Your task to perform on an android device: turn on javascript in the chrome app Image 0: 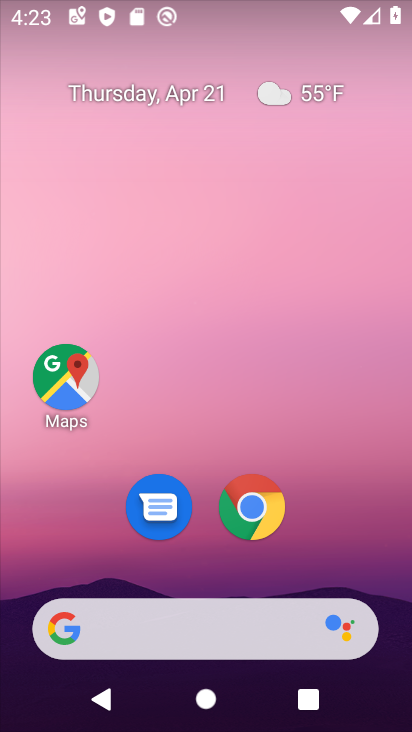
Step 0: drag from (356, 524) to (301, 151)
Your task to perform on an android device: turn on javascript in the chrome app Image 1: 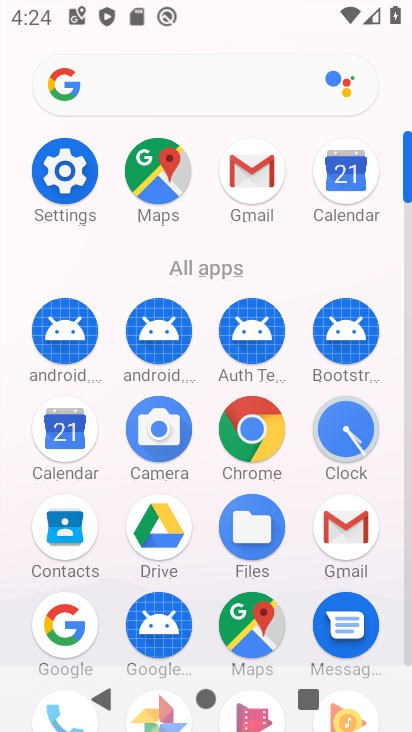
Step 1: click (249, 434)
Your task to perform on an android device: turn on javascript in the chrome app Image 2: 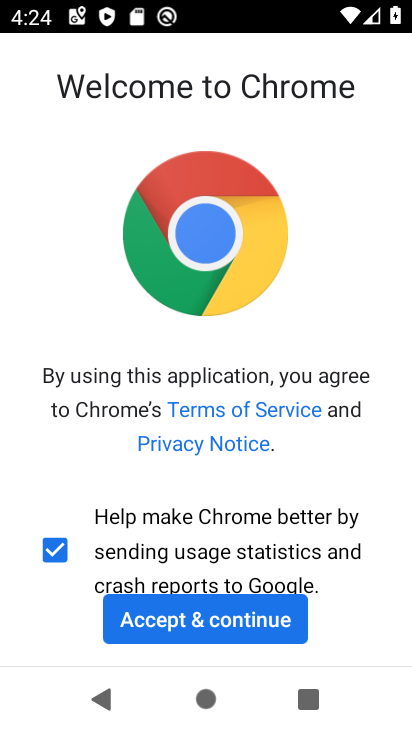
Step 2: click (242, 624)
Your task to perform on an android device: turn on javascript in the chrome app Image 3: 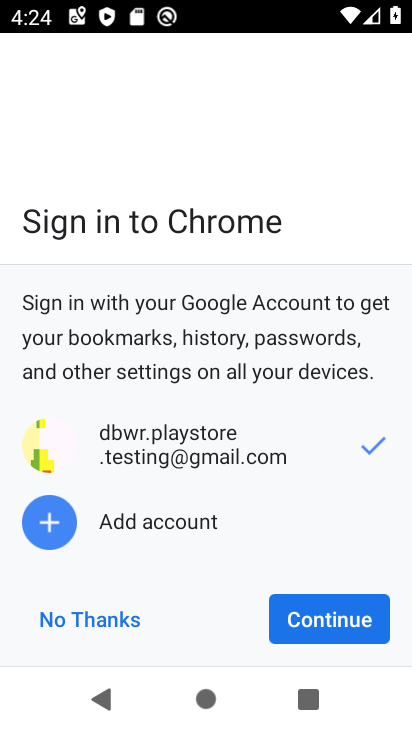
Step 3: click (89, 625)
Your task to perform on an android device: turn on javascript in the chrome app Image 4: 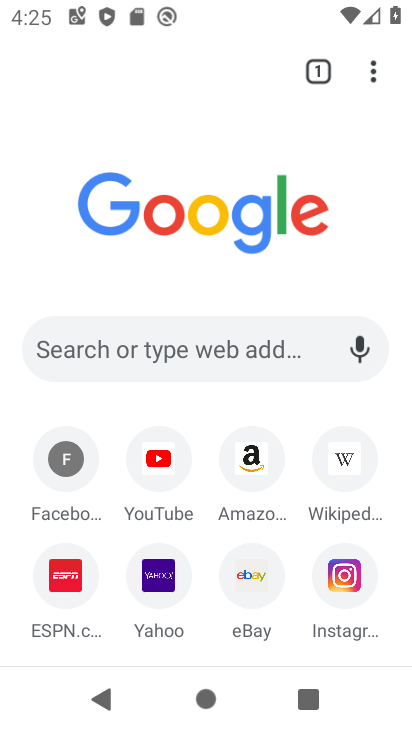
Step 4: drag from (381, 62) to (255, 510)
Your task to perform on an android device: turn on javascript in the chrome app Image 5: 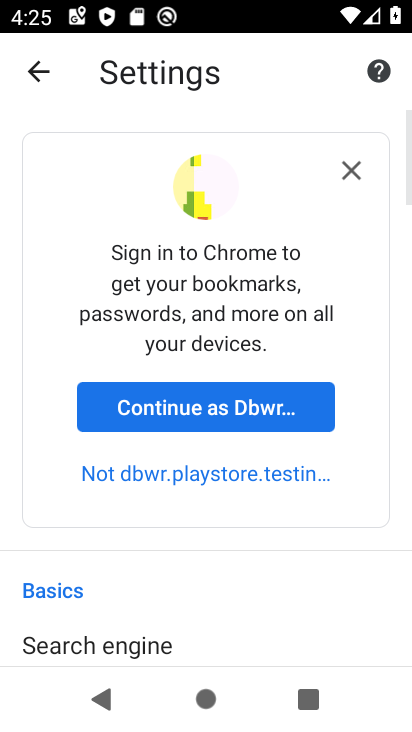
Step 5: drag from (250, 526) to (227, 228)
Your task to perform on an android device: turn on javascript in the chrome app Image 6: 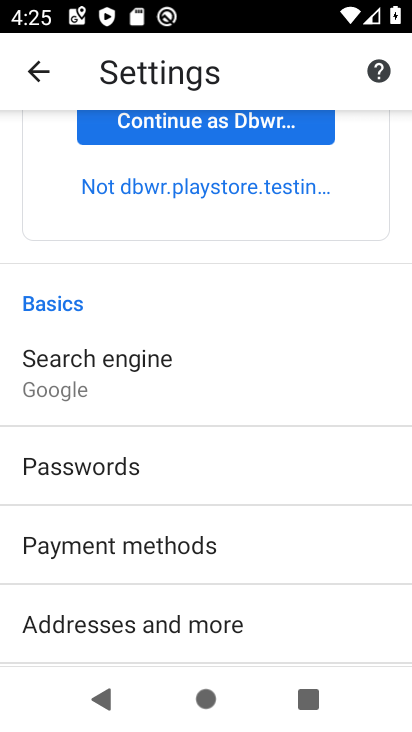
Step 6: drag from (273, 547) to (242, 241)
Your task to perform on an android device: turn on javascript in the chrome app Image 7: 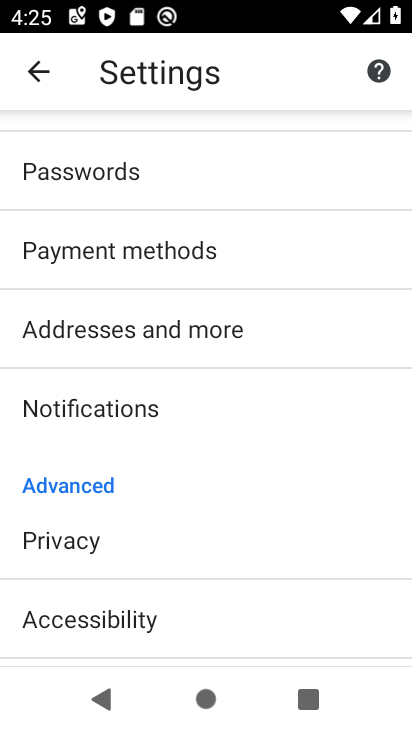
Step 7: drag from (236, 585) to (198, 233)
Your task to perform on an android device: turn on javascript in the chrome app Image 8: 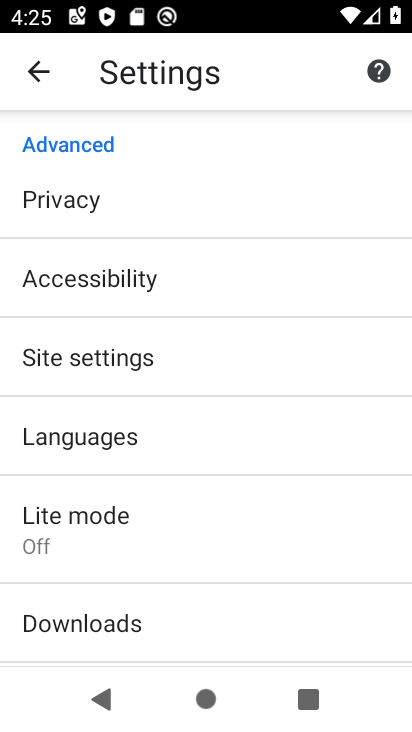
Step 8: click (102, 329)
Your task to perform on an android device: turn on javascript in the chrome app Image 9: 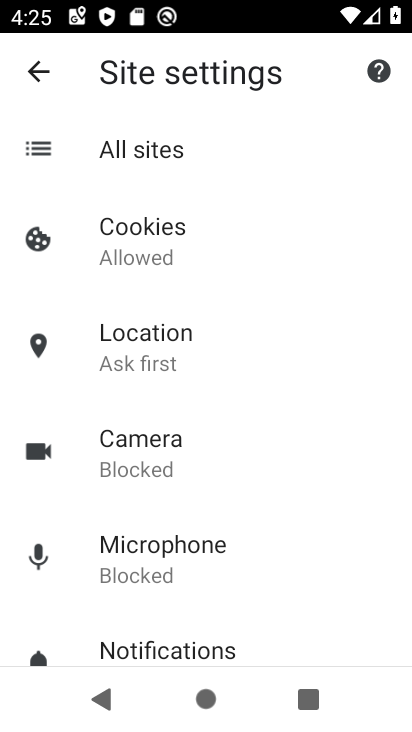
Step 9: drag from (241, 601) to (191, 237)
Your task to perform on an android device: turn on javascript in the chrome app Image 10: 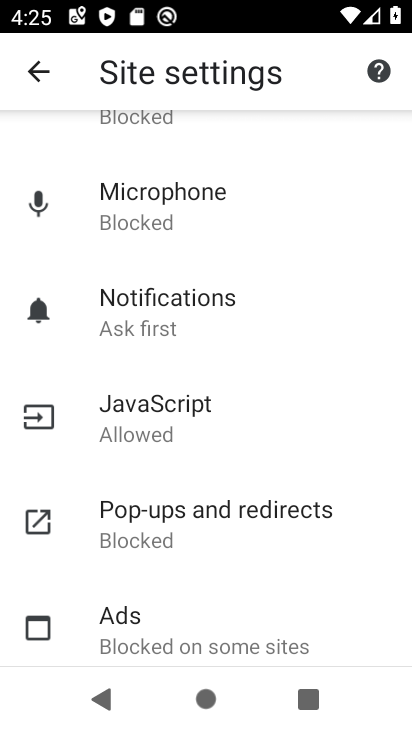
Step 10: click (146, 425)
Your task to perform on an android device: turn on javascript in the chrome app Image 11: 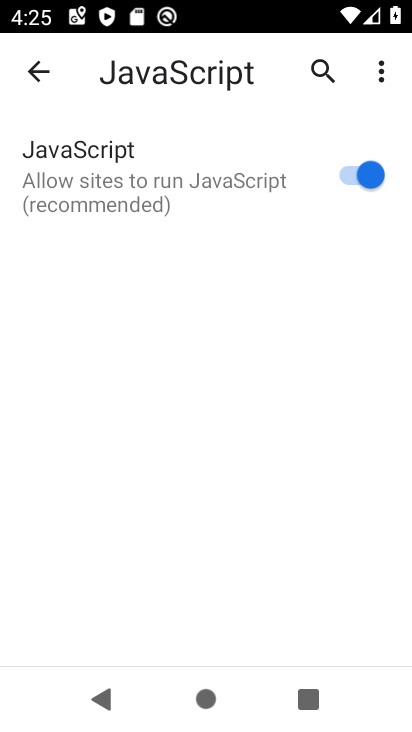
Step 11: task complete